Your task to perform on an android device: Open Android settings Image 0: 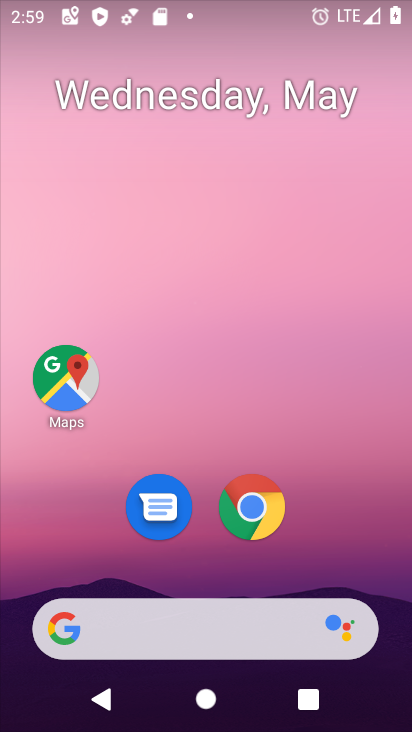
Step 0: drag from (310, 567) to (269, 216)
Your task to perform on an android device: Open Android settings Image 1: 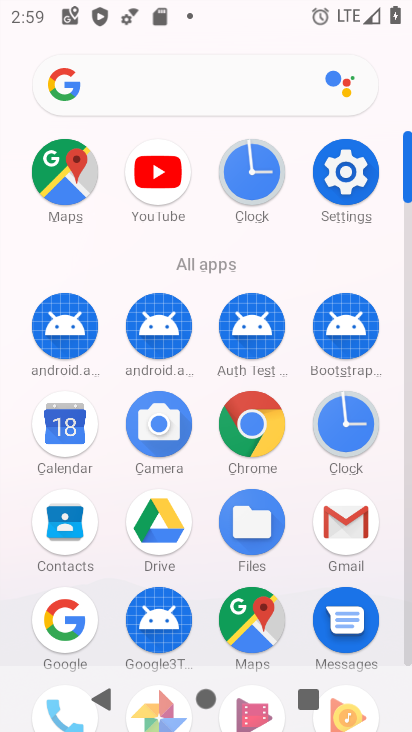
Step 1: click (345, 172)
Your task to perform on an android device: Open Android settings Image 2: 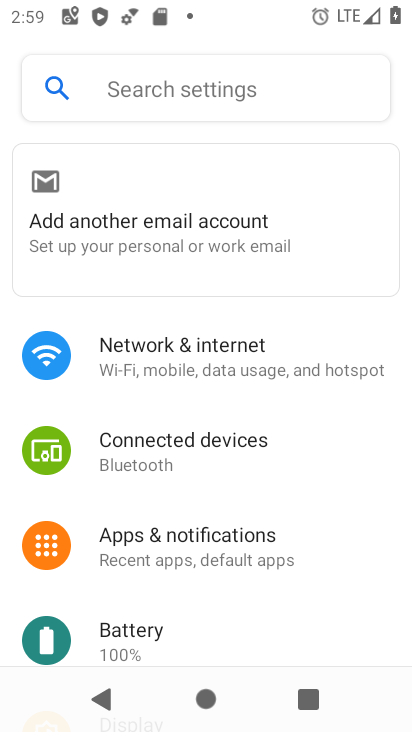
Step 2: task complete